Your task to perform on an android device: Go to battery settings Image 0: 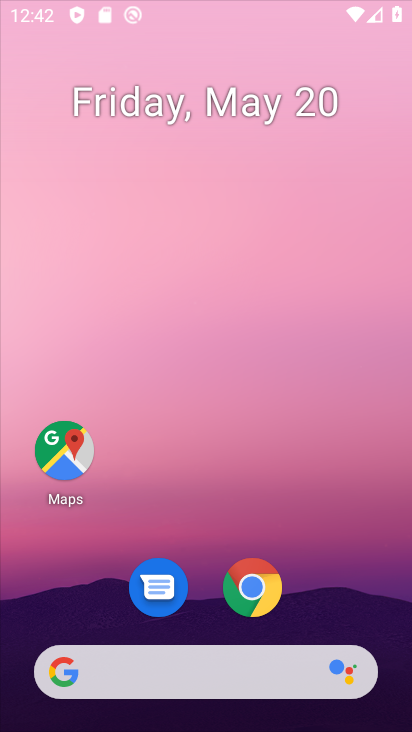
Step 0: drag from (327, 551) to (165, 4)
Your task to perform on an android device: Go to battery settings Image 1: 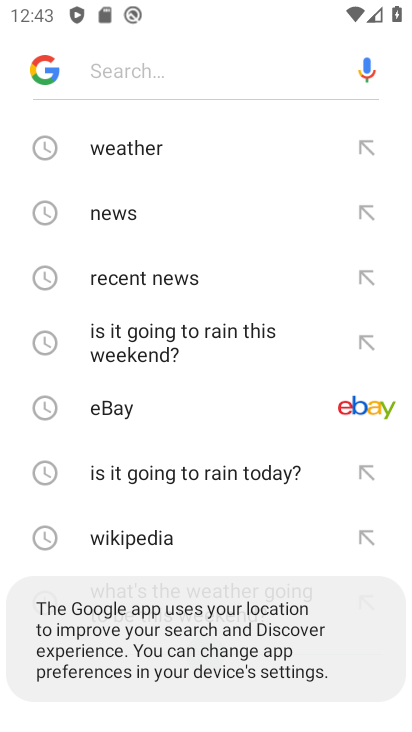
Step 1: press home button
Your task to perform on an android device: Go to battery settings Image 2: 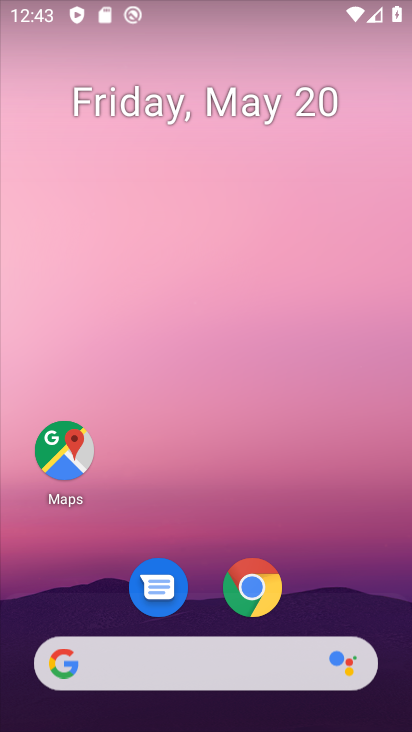
Step 2: drag from (211, 481) to (208, 0)
Your task to perform on an android device: Go to battery settings Image 3: 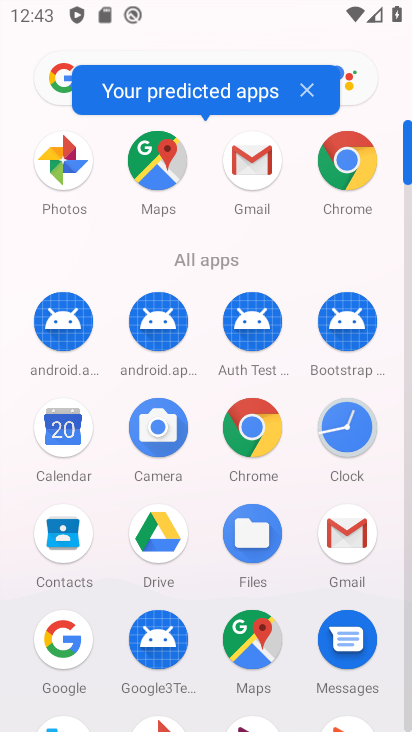
Step 3: drag from (199, 557) to (180, 121)
Your task to perform on an android device: Go to battery settings Image 4: 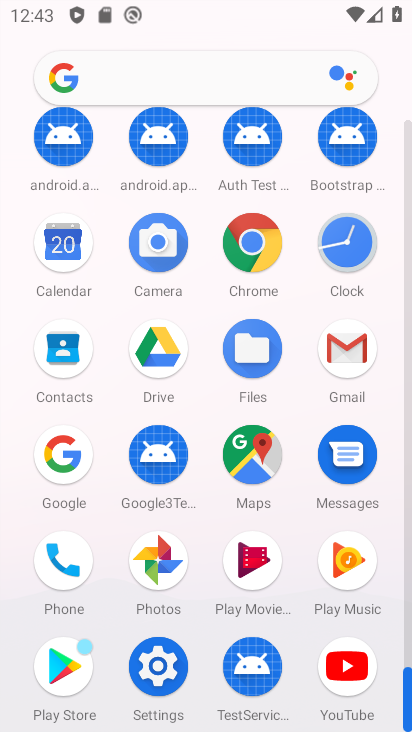
Step 4: click (153, 665)
Your task to perform on an android device: Go to battery settings Image 5: 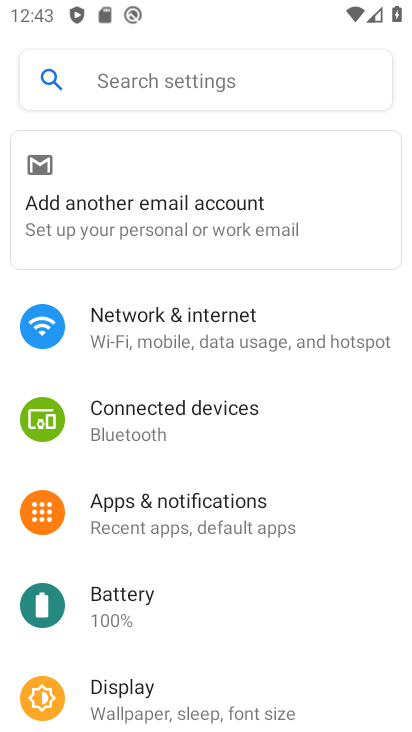
Step 5: click (114, 603)
Your task to perform on an android device: Go to battery settings Image 6: 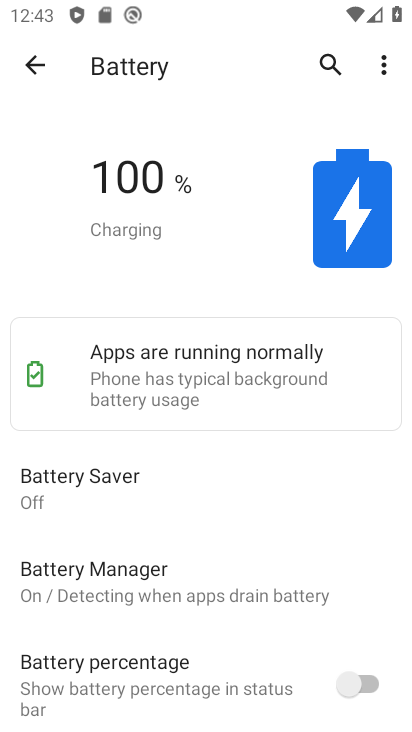
Step 6: task complete